Your task to perform on an android device: open a bookmark in the chrome app Image 0: 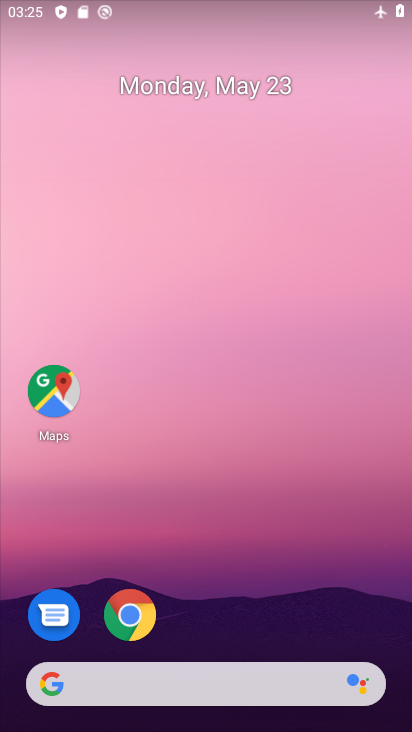
Step 0: click (132, 599)
Your task to perform on an android device: open a bookmark in the chrome app Image 1: 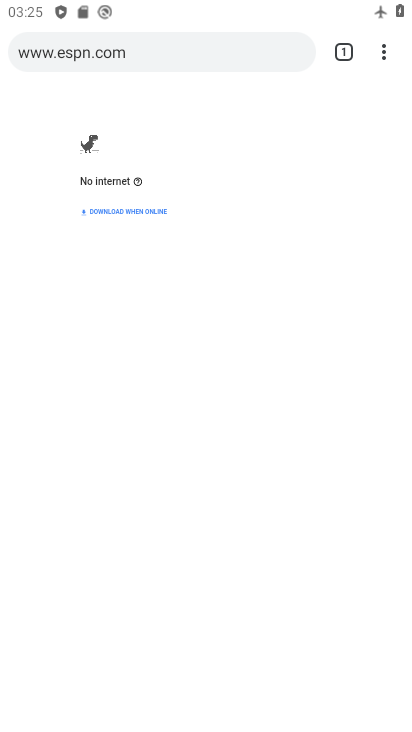
Step 1: click (386, 43)
Your task to perform on an android device: open a bookmark in the chrome app Image 2: 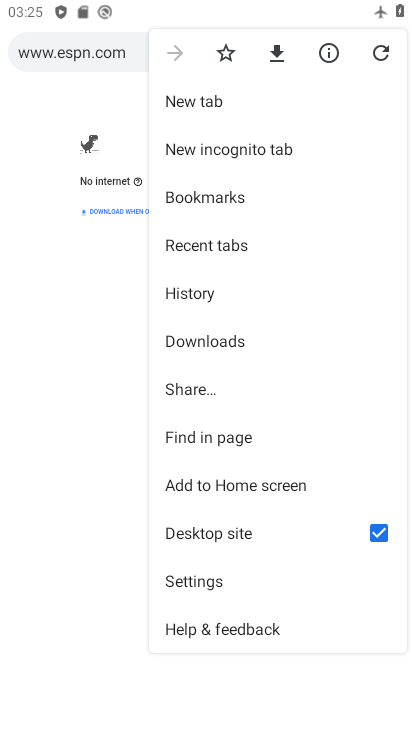
Step 2: click (231, 204)
Your task to perform on an android device: open a bookmark in the chrome app Image 3: 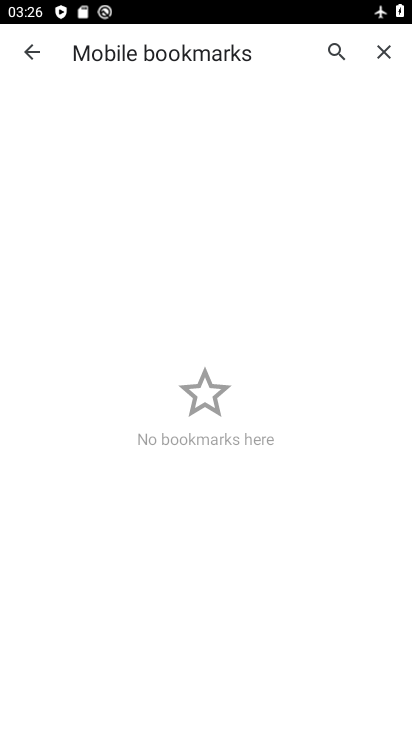
Step 3: task complete